Your task to perform on an android device: turn on data saver in the chrome app Image 0: 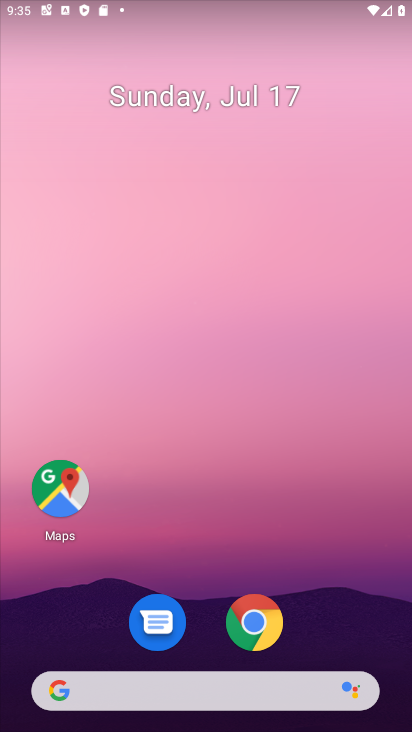
Step 0: click (273, 632)
Your task to perform on an android device: turn on data saver in the chrome app Image 1: 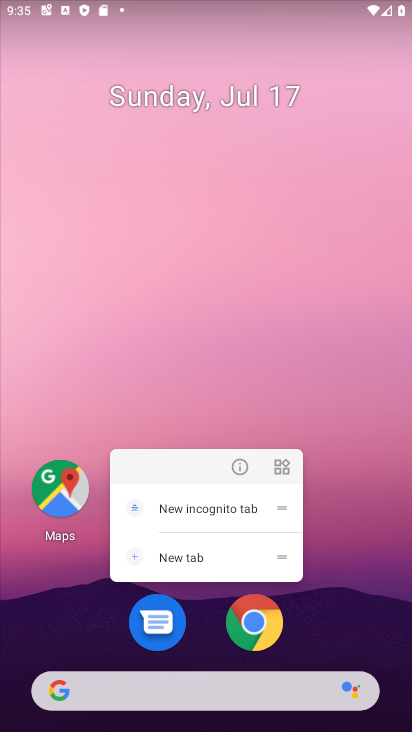
Step 1: click (273, 632)
Your task to perform on an android device: turn on data saver in the chrome app Image 2: 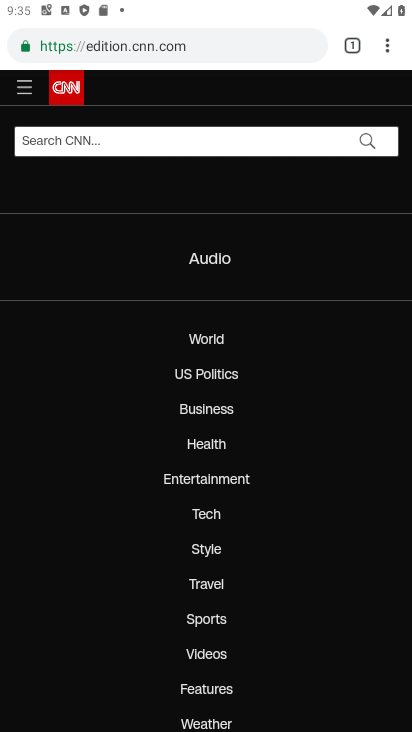
Step 2: click (384, 47)
Your task to perform on an android device: turn on data saver in the chrome app Image 3: 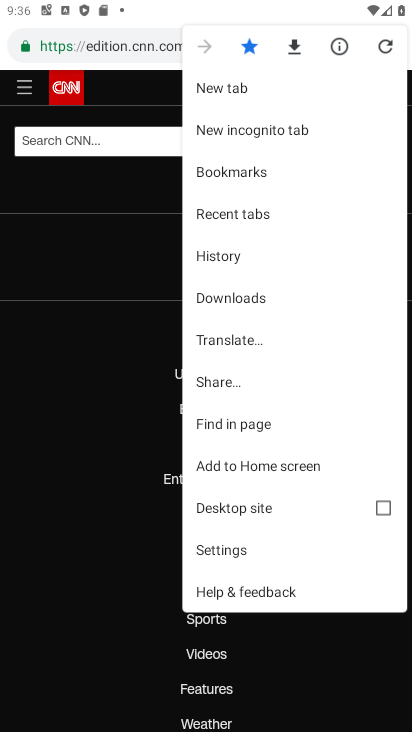
Step 3: click (234, 548)
Your task to perform on an android device: turn on data saver in the chrome app Image 4: 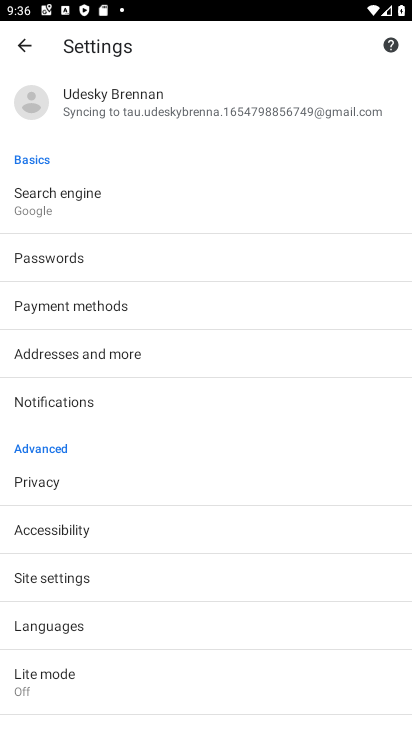
Step 4: click (38, 675)
Your task to perform on an android device: turn on data saver in the chrome app Image 5: 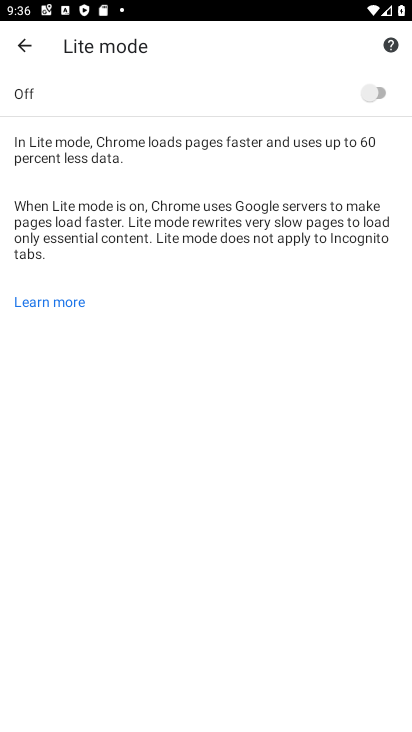
Step 5: click (371, 97)
Your task to perform on an android device: turn on data saver in the chrome app Image 6: 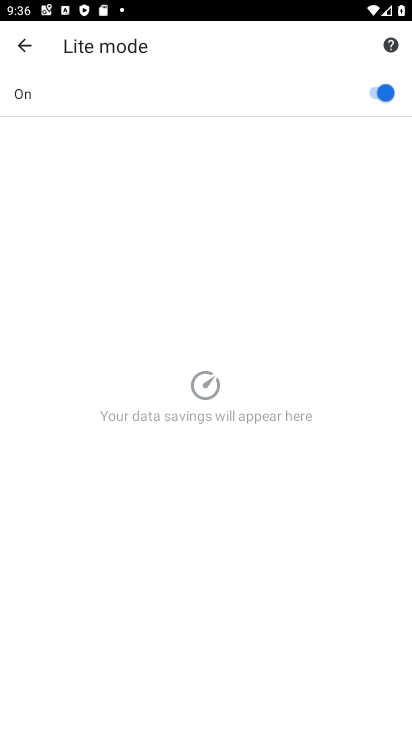
Step 6: task complete